Your task to perform on an android device: change the clock display to analog Image 0: 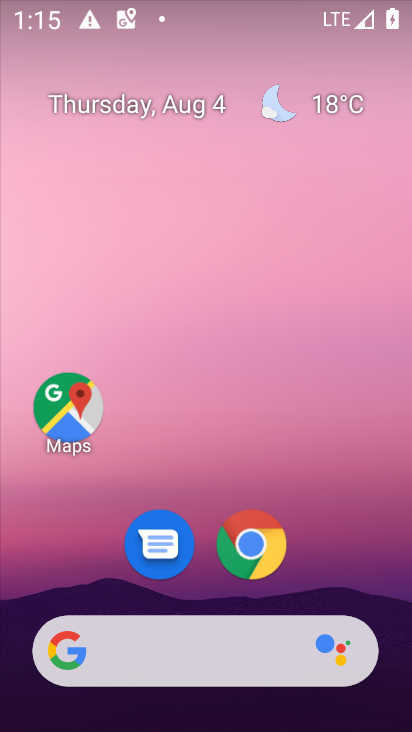
Step 0: drag from (373, 629) to (351, 106)
Your task to perform on an android device: change the clock display to analog Image 1: 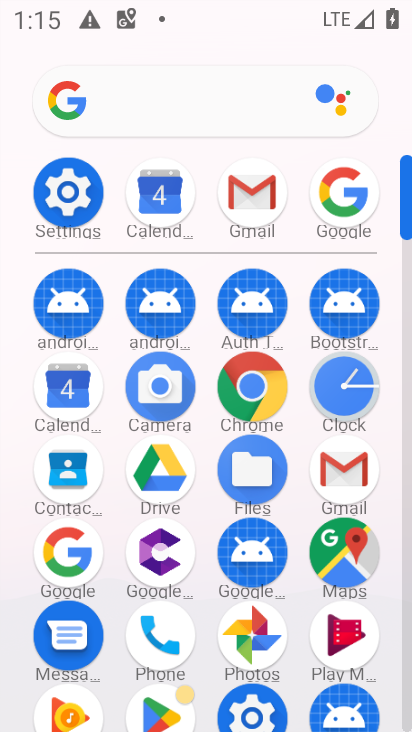
Step 1: click (342, 399)
Your task to perform on an android device: change the clock display to analog Image 2: 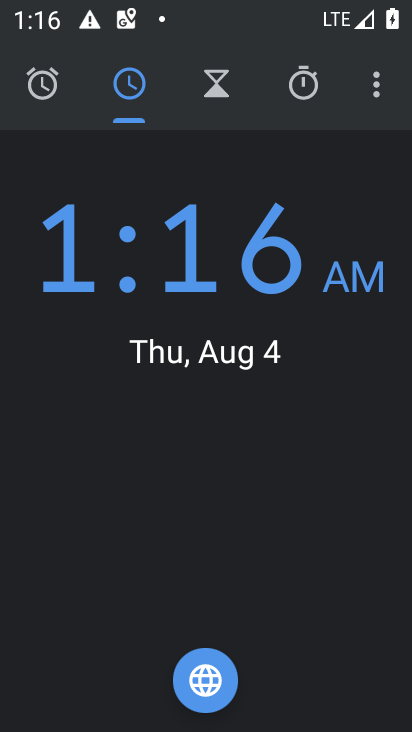
Step 2: click (377, 87)
Your task to perform on an android device: change the clock display to analog Image 3: 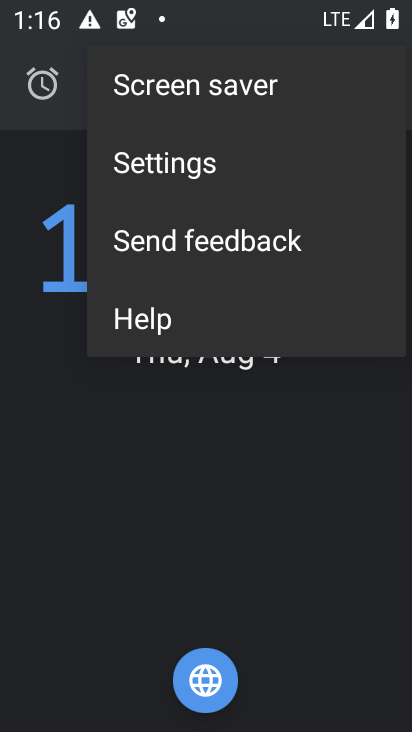
Step 3: click (157, 170)
Your task to perform on an android device: change the clock display to analog Image 4: 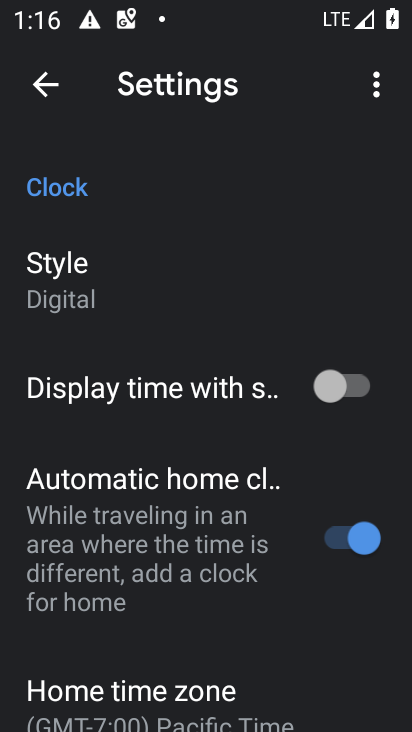
Step 4: click (71, 287)
Your task to perform on an android device: change the clock display to analog Image 5: 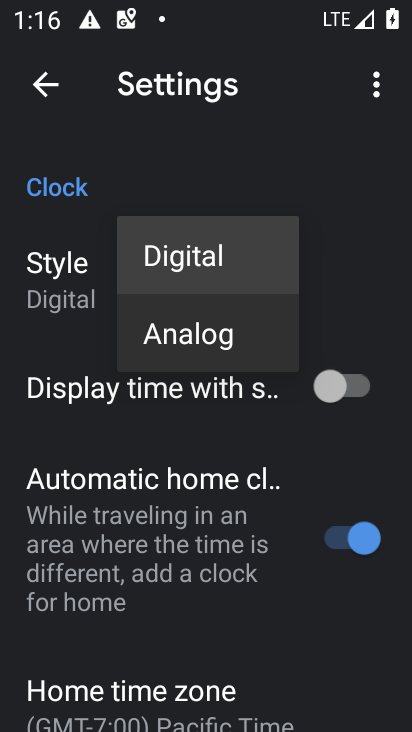
Step 5: click (185, 337)
Your task to perform on an android device: change the clock display to analog Image 6: 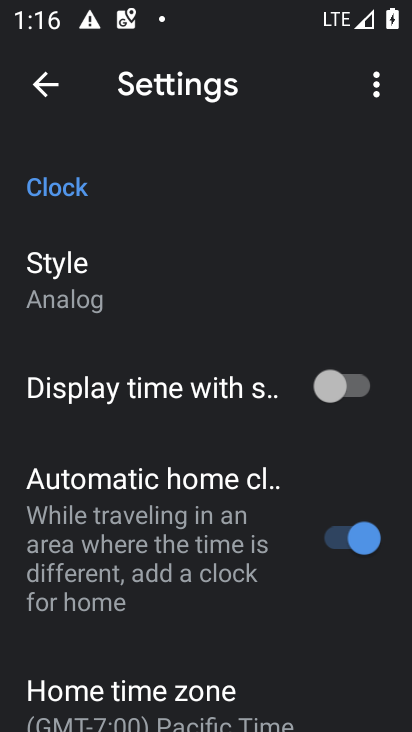
Step 6: task complete